Your task to perform on an android device: turn off picture-in-picture Image 0: 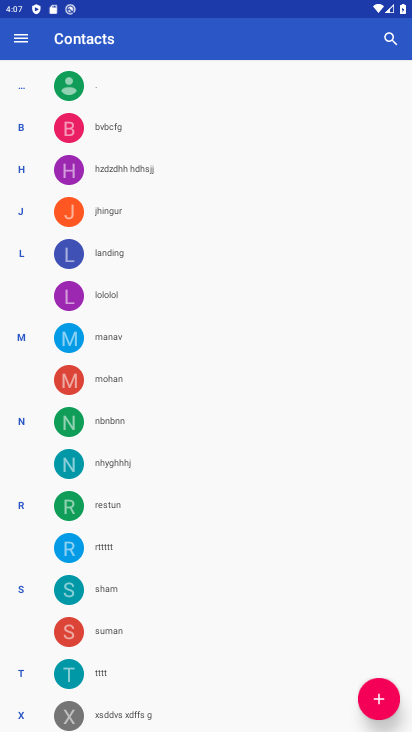
Step 0: press home button
Your task to perform on an android device: turn off picture-in-picture Image 1: 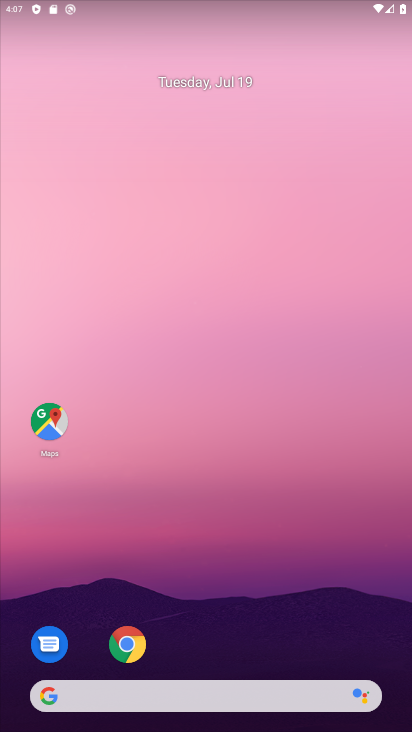
Step 1: drag from (210, 657) to (269, 188)
Your task to perform on an android device: turn off picture-in-picture Image 2: 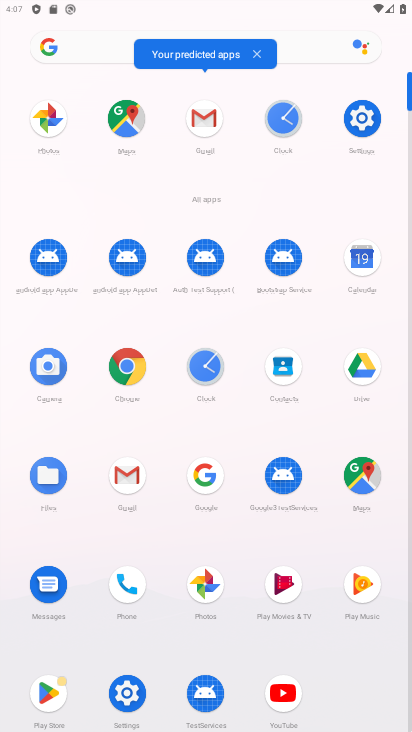
Step 2: click (354, 144)
Your task to perform on an android device: turn off picture-in-picture Image 3: 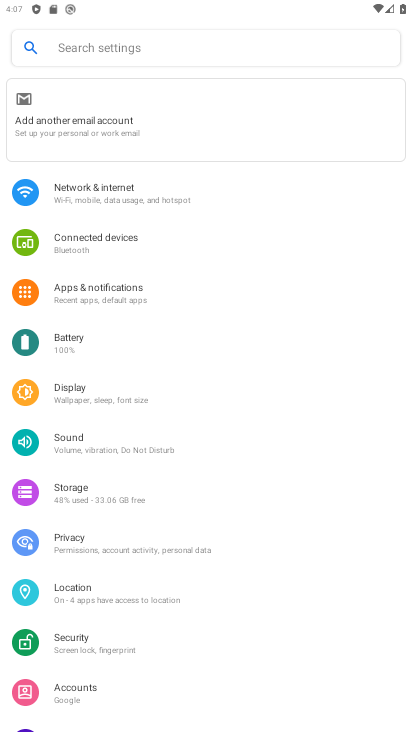
Step 3: click (133, 302)
Your task to perform on an android device: turn off picture-in-picture Image 4: 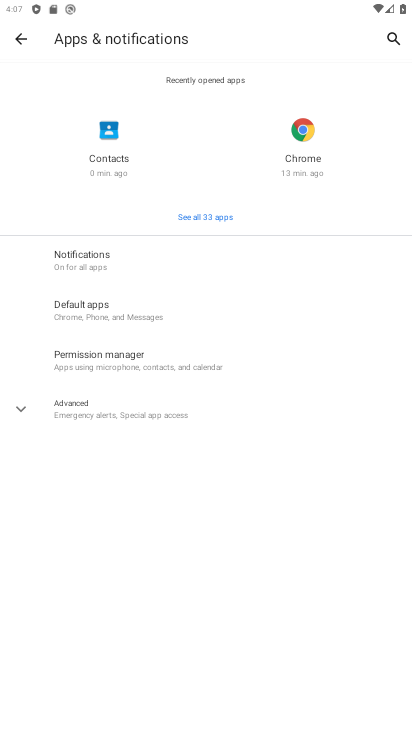
Step 4: click (112, 414)
Your task to perform on an android device: turn off picture-in-picture Image 5: 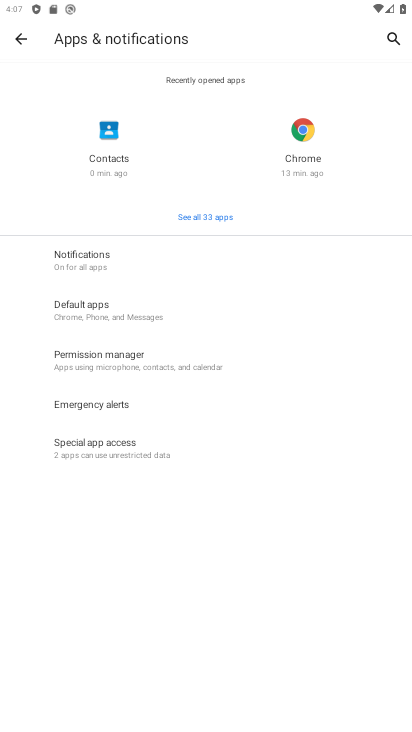
Step 5: click (100, 443)
Your task to perform on an android device: turn off picture-in-picture Image 6: 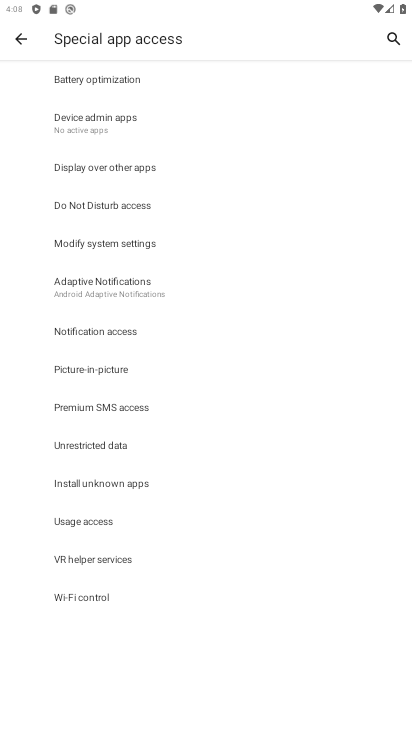
Step 6: click (115, 381)
Your task to perform on an android device: turn off picture-in-picture Image 7: 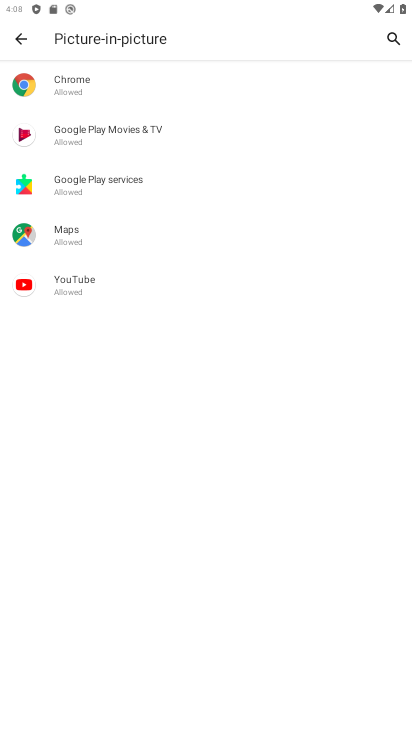
Step 7: click (267, 93)
Your task to perform on an android device: turn off picture-in-picture Image 8: 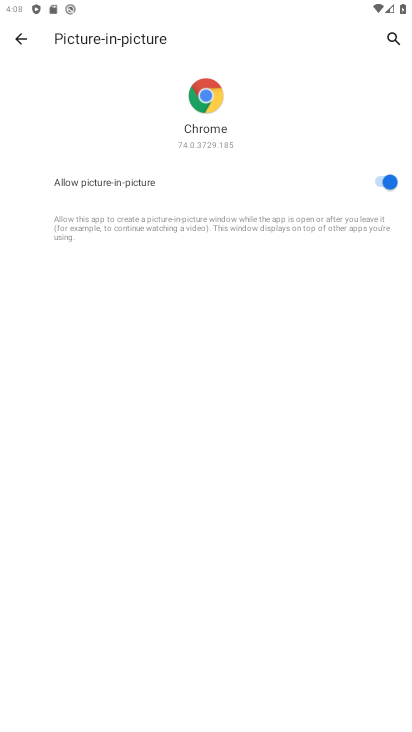
Step 8: click (377, 185)
Your task to perform on an android device: turn off picture-in-picture Image 9: 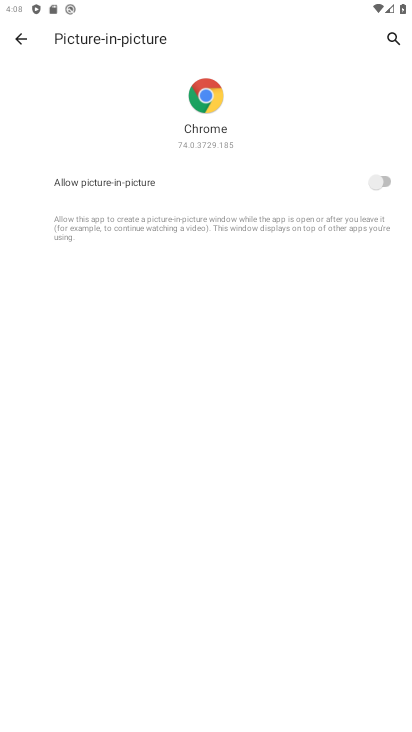
Step 9: task complete